Your task to perform on an android device: turn on showing notifications on the lock screen Image 0: 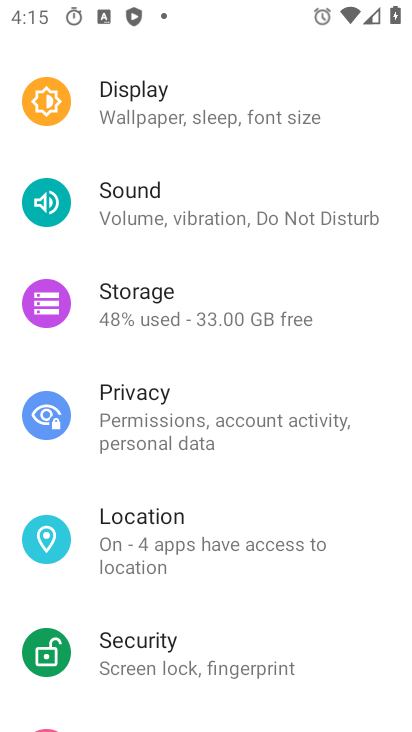
Step 0: drag from (207, 128) to (207, 465)
Your task to perform on an android device: turn on showing notifications on the lock screen Image 1: 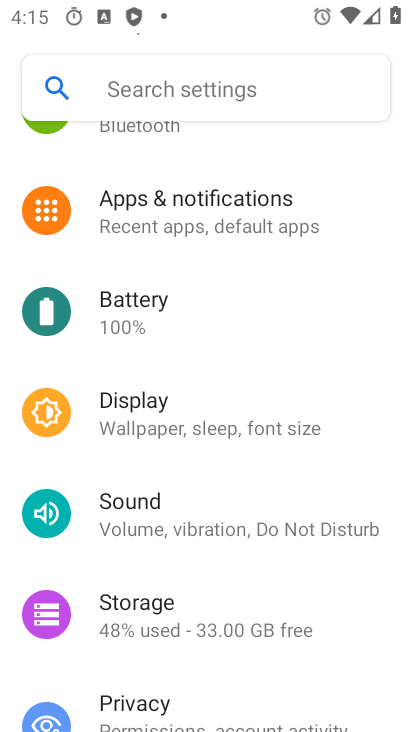
Step 1: click (187, 243)
Your task to perform on an android device: turn on showing notifications on the lock screen Image 2: 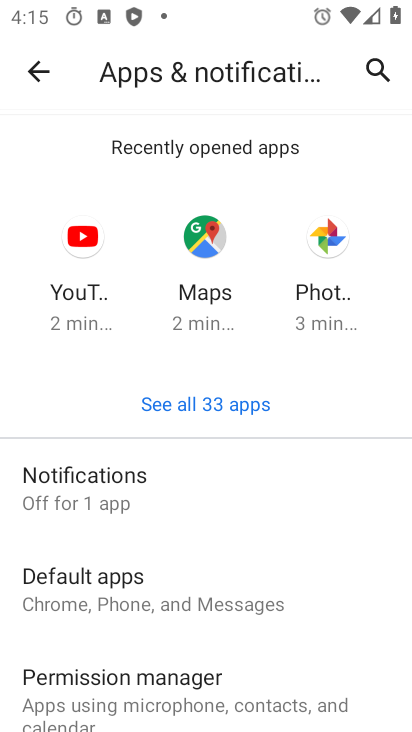
Step 2: click (113, 513)
Your task to perform on an android device: turn on showing notifications on the lock screen Image 3: 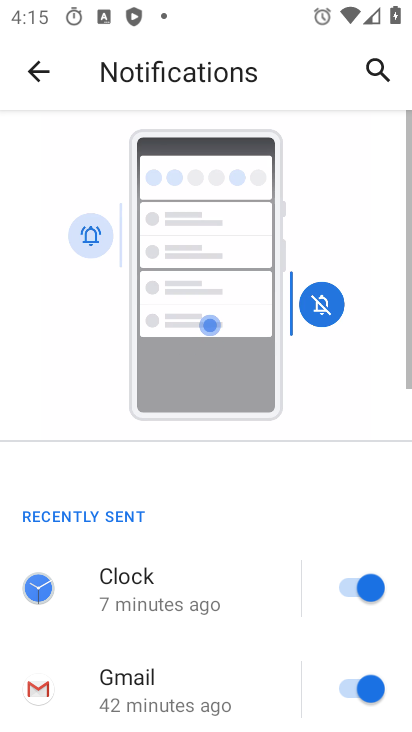
Step 3: drag from (232, 646) to (235, 238)
Your task to perform on an android device: turn on showing notifications on the lock screen Image 4: 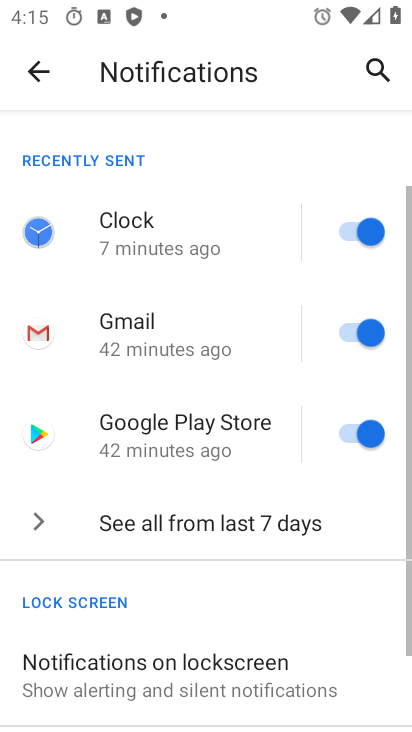
Step 4: drag from (254, 588) to (264, 380)
Your task to perform on an android device: turn on showing notifications on the lock screen Image 5: 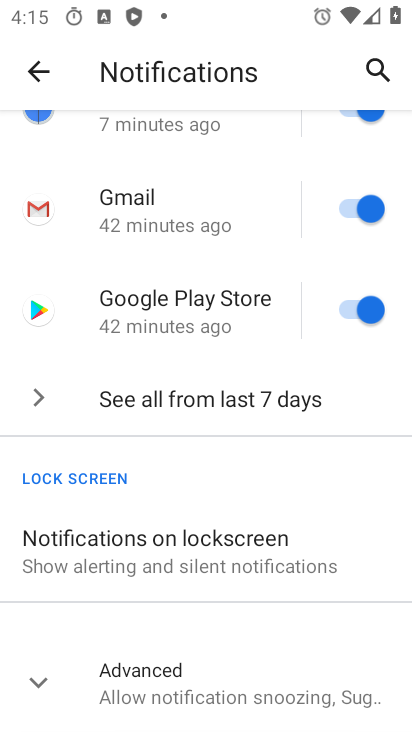
Step 5: click (240, 545)
Your task to perform on an android device: turn on showing notifications on the lock screen Image 6: 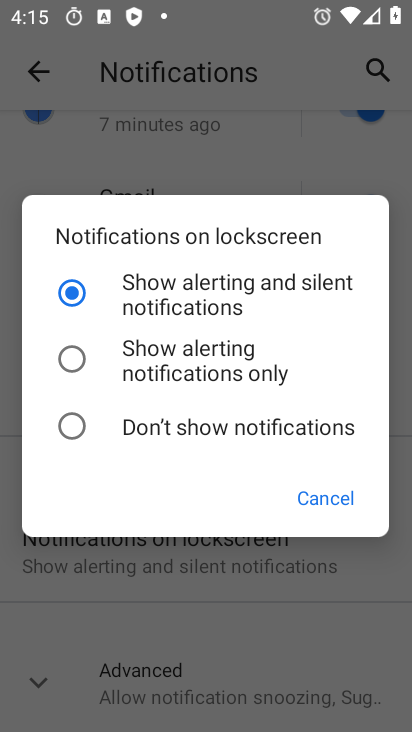
Step 6: task complete